Your task to perform on an android device: clear history in the chrome app Image 0: 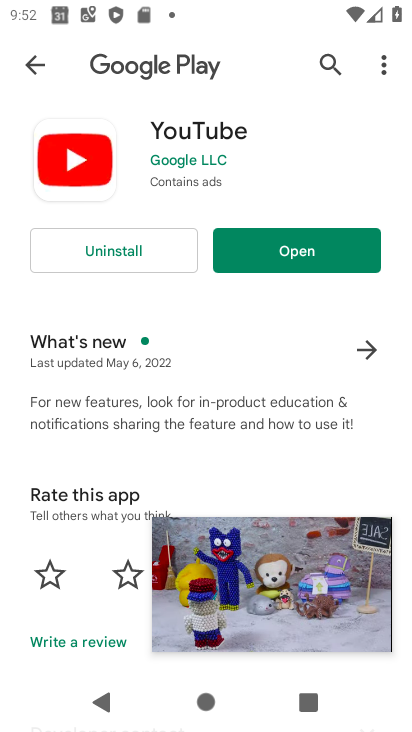
Step 0: click (373, 522)
Your task to perform on an android device: clear history in the chrome app Image 1: 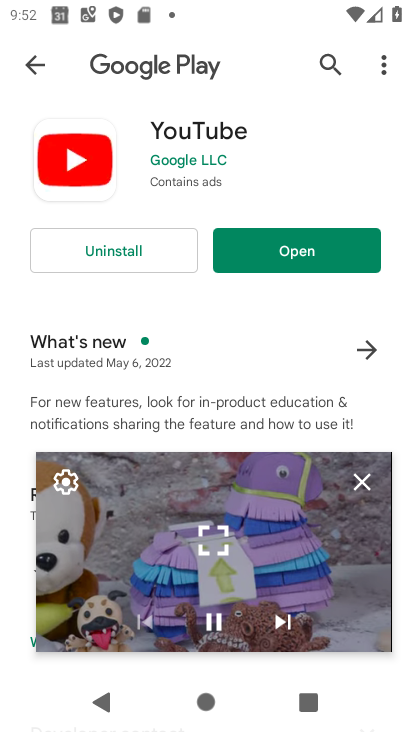
Step 1: click (360, 476)
Your task to perform on an android device: clear history in the chrome app Image 2: 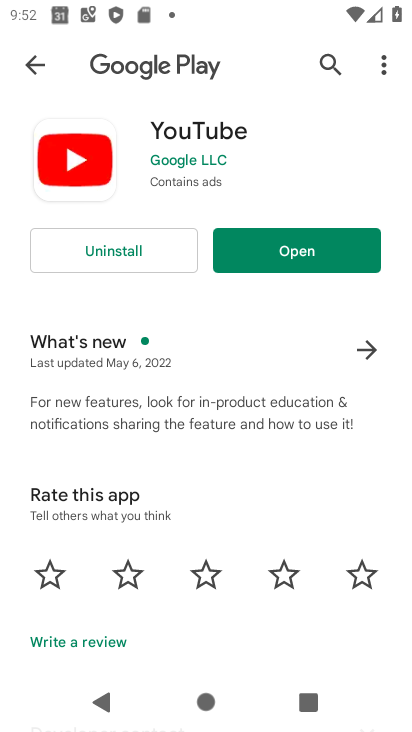
Step 2: press home button
Your task to perform on an android device: clear history in the chrome app Image 3: 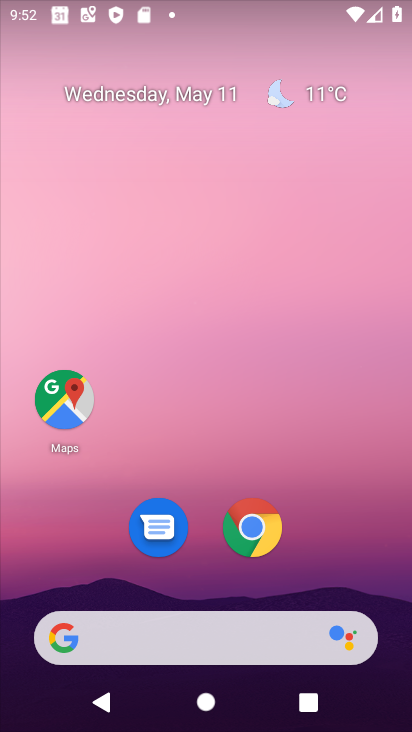
Step 3: drag from (317, 559) to (372, 84)
Your task to perform on an android device: clear history in the chrome app Image 4: 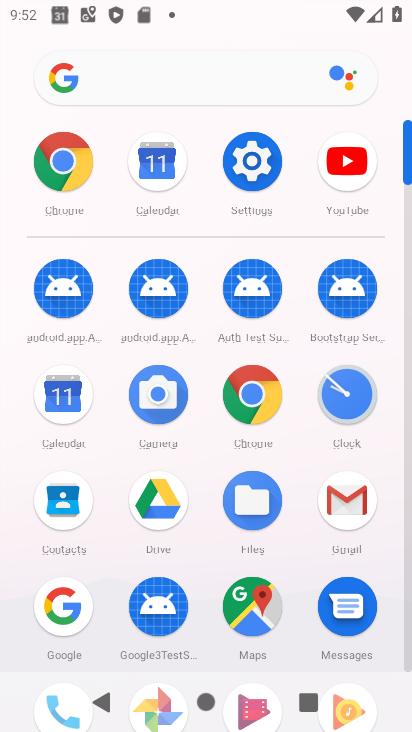
Step 4: click (30, 157)
Your task to perform on an android device: clear history in the chrome app Image 5: 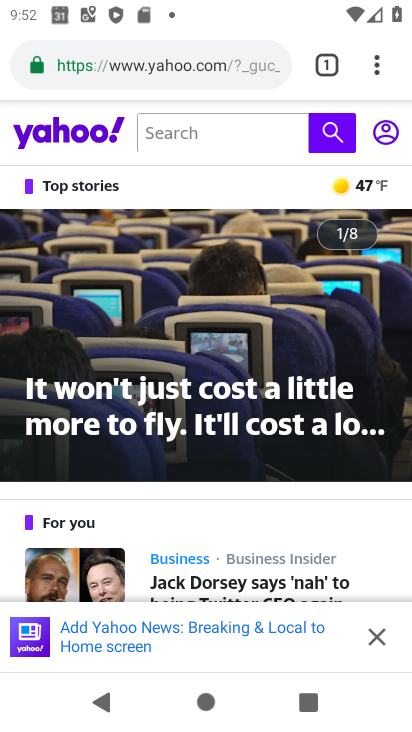
Step 5: drag from (375, 61) to (107, 389)
Your task to perform on an android device: clear history in the chrome app Image 6: 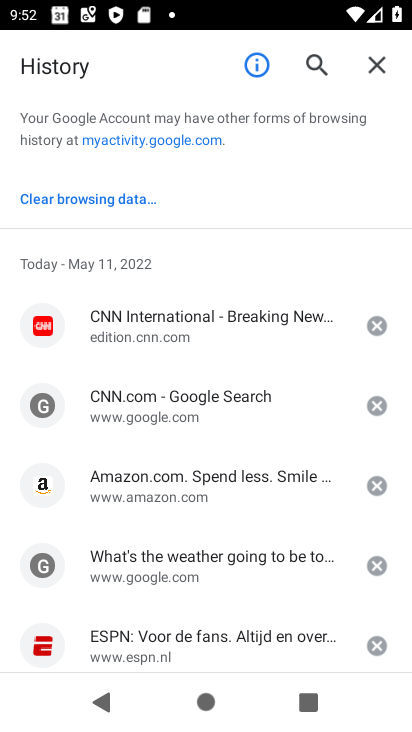
Step 6: click (76, 210)
Your task to perform on an android device: clear history in the chrome app Image 7: 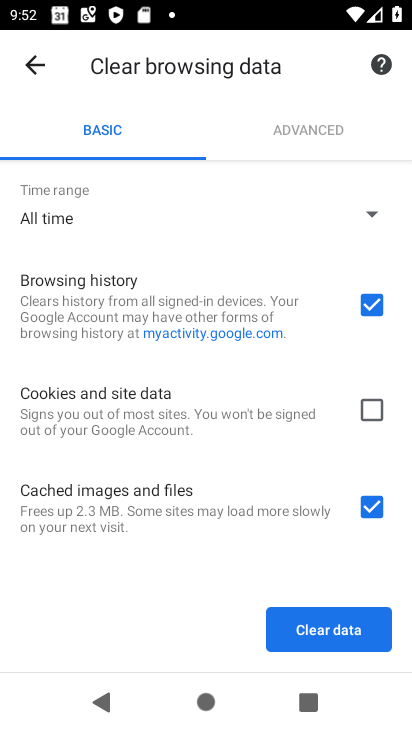
Step 7: click (366, 516)
Your task to perform on an android device: clear history in the chrome app Image 8: 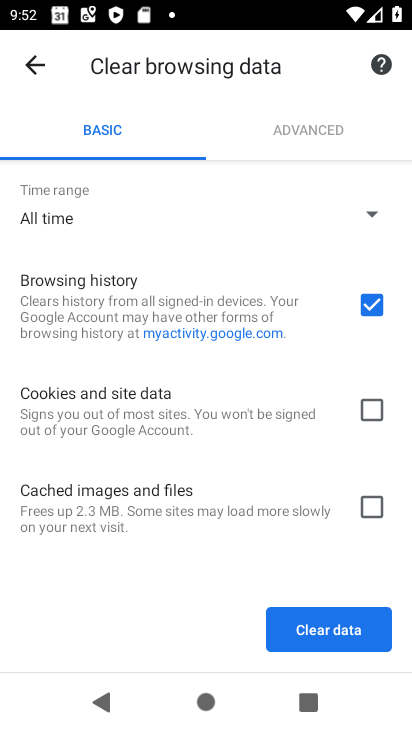
Step 8: click (293, 633)
Your task to perform on an android device: clear history in the chrome app Image 9: 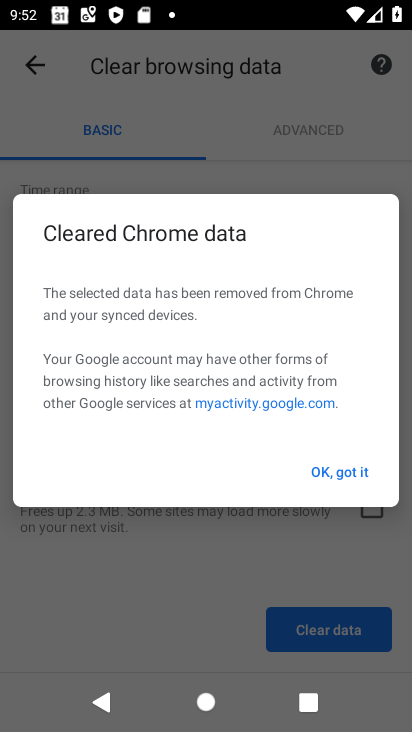
Step 9: click (363, 467)
Your task to perform on an android device: clear history in the chrome app Image 10: 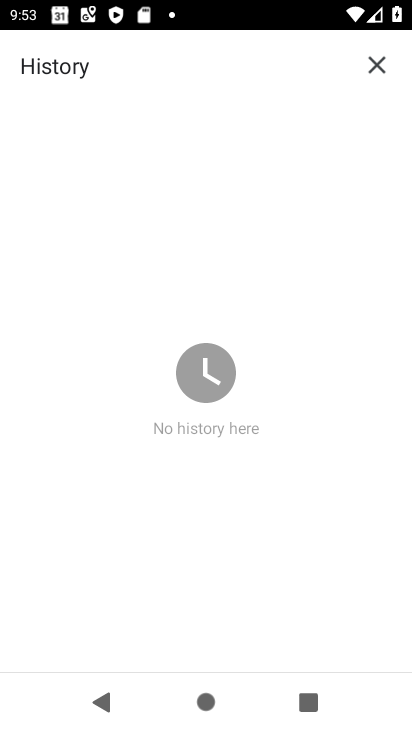
Step 10: task complete